Your task to perform on an android device: Go to Android settings Image 0: 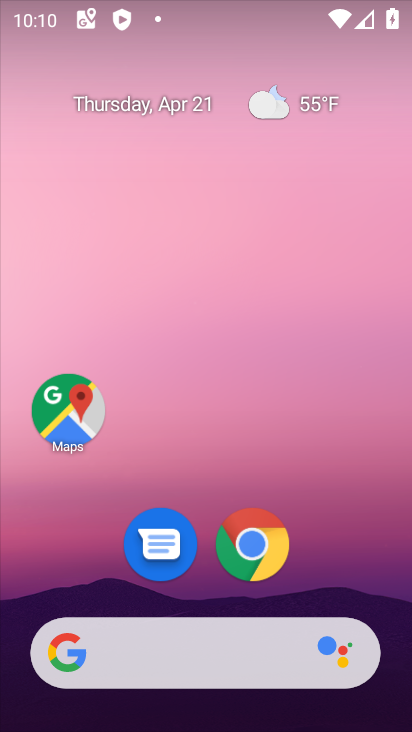
Step 0: drag from (330, 526) to (173, 60)
Your task to perform on an android device: Go to Android settings Image 1: 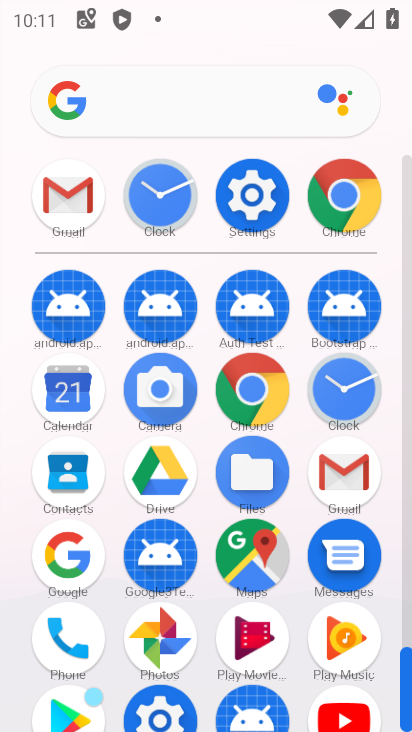
Step 1: drag from (15, 531) to (2, 240)
Your task to perform on an android device: Go to Android settings Image 2: 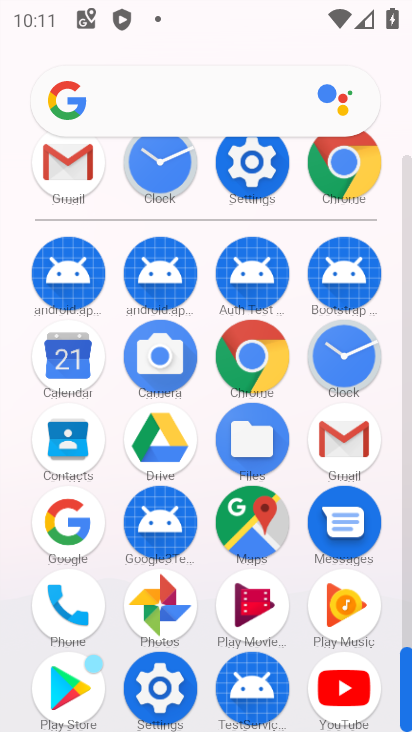
Step 2: click (252, 168)
Your task to perform on an android device: Go to Android settings Image 3: 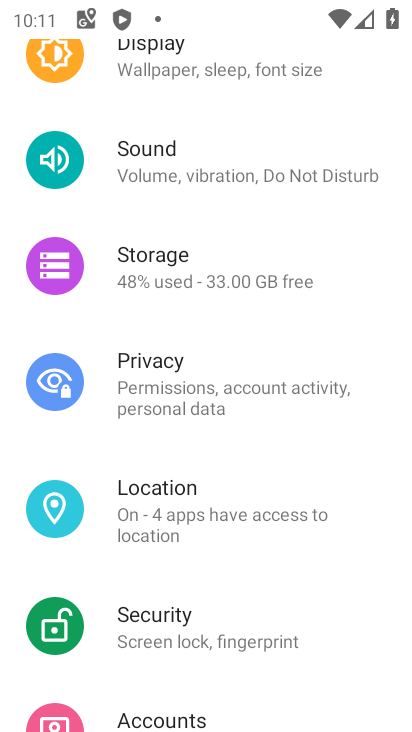
Step 3: task complete